Your task to perform on an android device: Show me productivity apps on the Play Store Image 0: 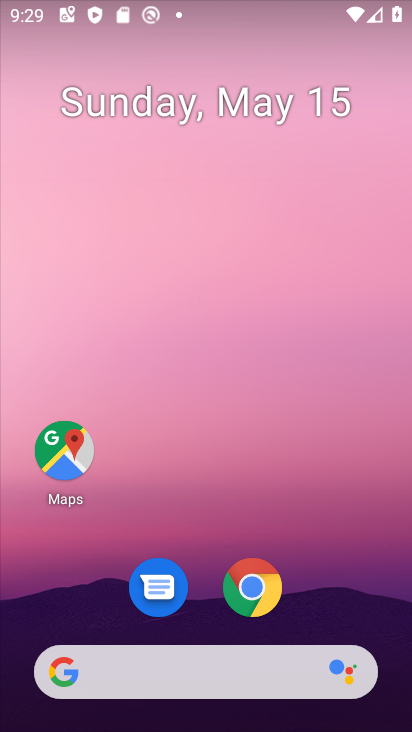
Step 0: drag from (388, 604) to (267, 131)
Your task to perform on an android device: Show me productivity apps on the Play Store Image 1: 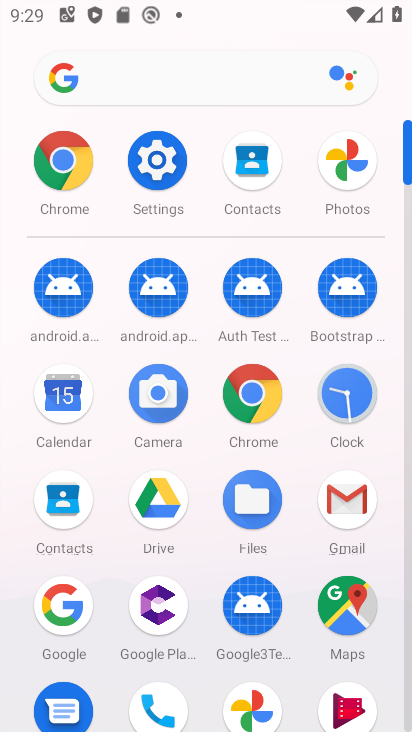
Step 1: drag from (194, 461) to (192, 179)
Your task to perform on an android device: Show me productivity apps on the Play Store Image 2: 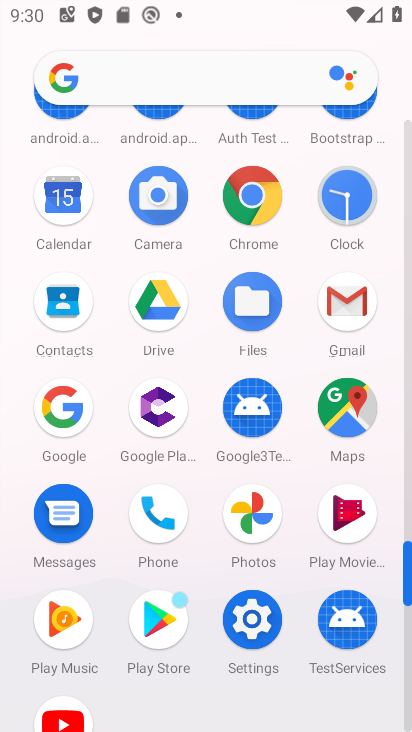
Step 2: click (169, 623)
Your task to perform on an android device: Show me productivity apps on the Play Store Image 3: 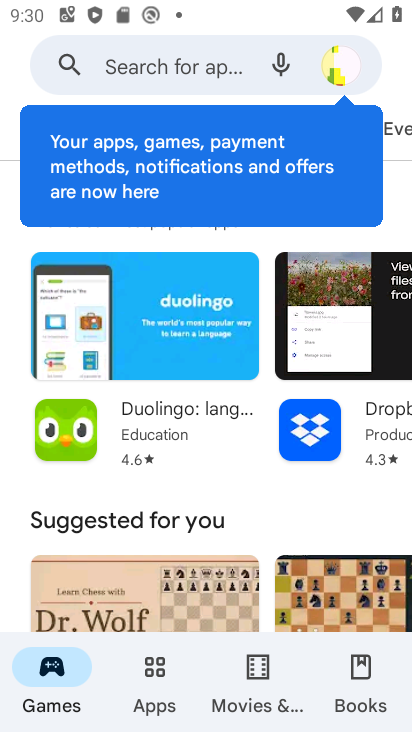
Step 3: task complete